Your task to perform on an android device: Do I have any events this weekend? Image 0: 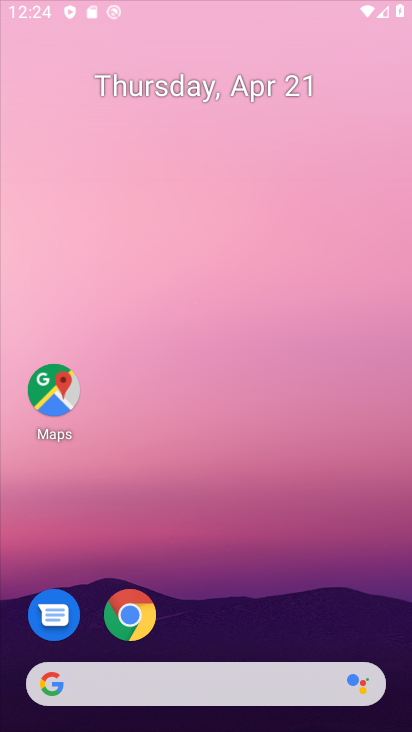
Step 0: drag from (233, 462) to (242, 54)
Your task to perform on an android device: Do I have any events this weekend? Image 1: 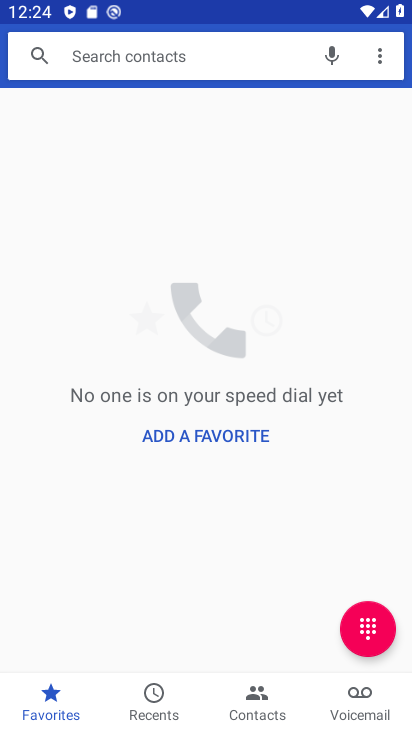
Step 1: press home button
Your task to perform on an android device: Do I have any events this weekend? Image 2: 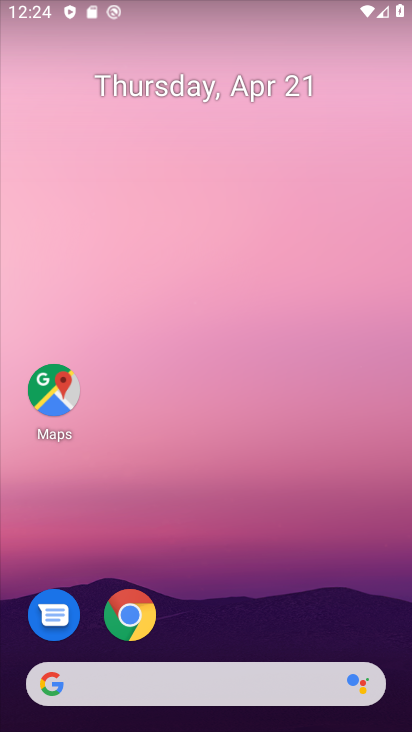
Step 2: drag from (343, 627) to (316, 34)
Your task to perform on an android device: Do I have any events this weekend? Image 3: 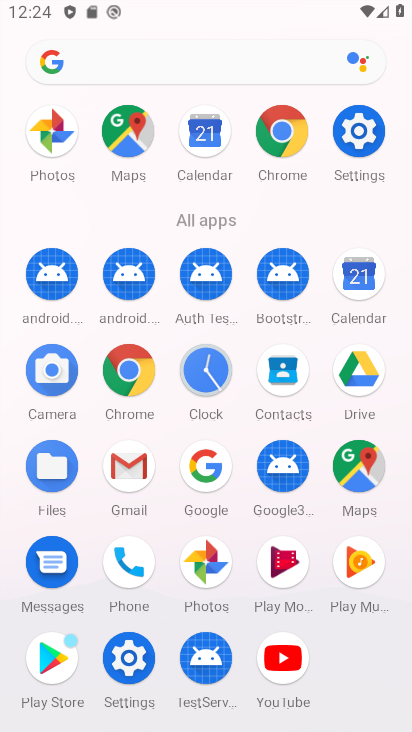
Step 3: click (372, 273)
Your task to perform on an android device: Do I have any events this weekend? Image 4: 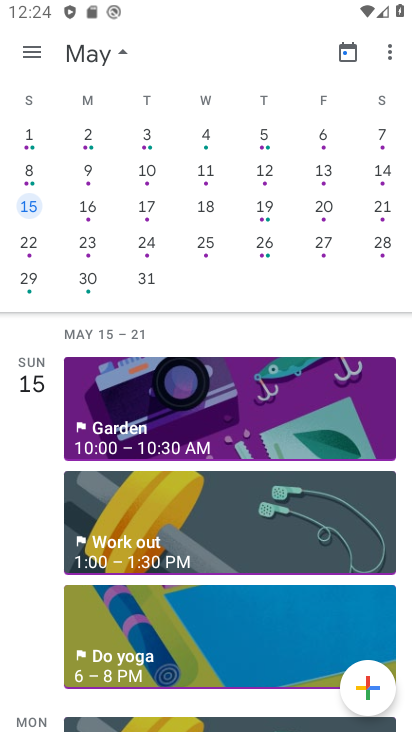
Step 4: click (101, 49)
Your task to perform on an android device: Do I have any events this weekend? Image 5: 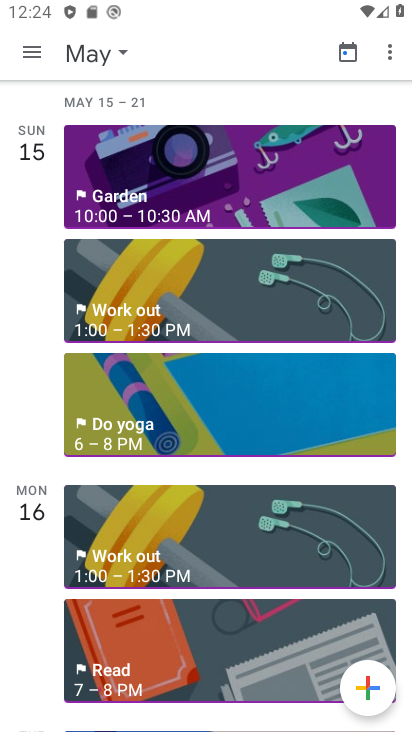
Step 5: task complete